Your task to perform on an android device: check storage Image 0: 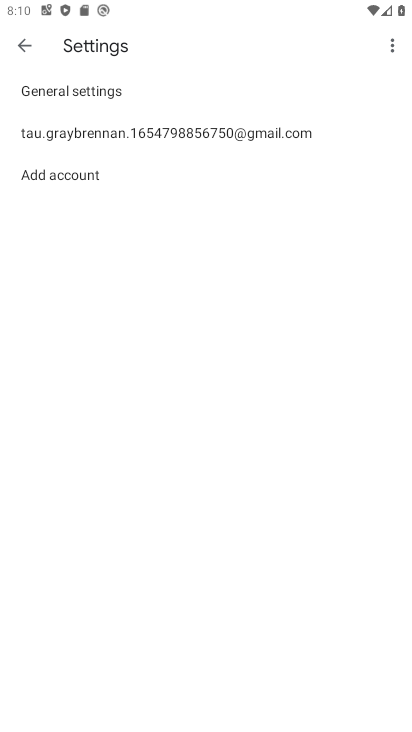
Step 0: press home button
Your task to perform on an android device: check storage Image 1: 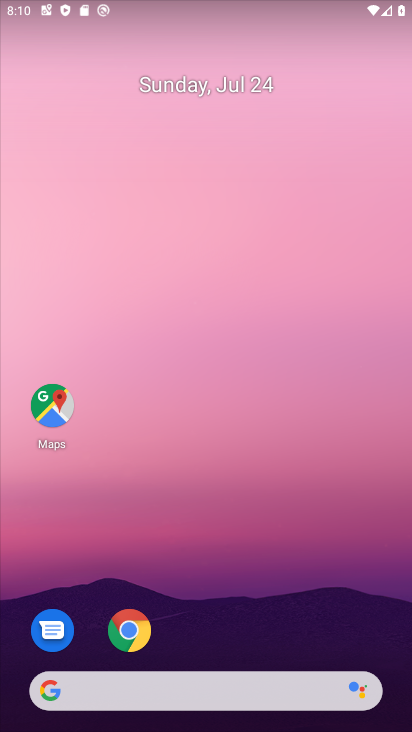
Step 1: drag from (250, 646) to (237, 113)
Your task to perform on an android device: check storage Image 2: 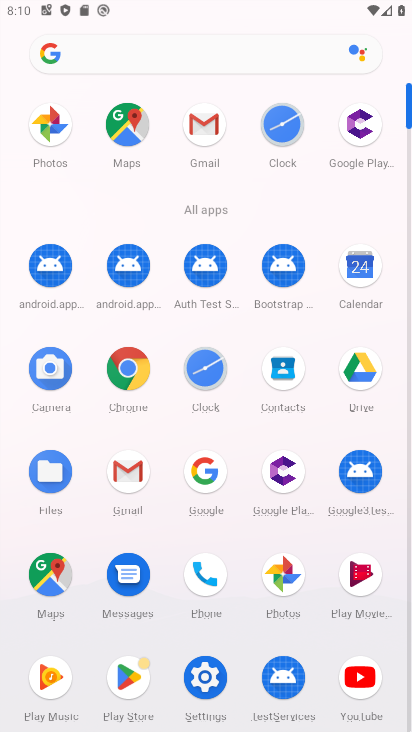
Step 2: click (211, 662)
Your task to perform on an android device: check storage Image 3: 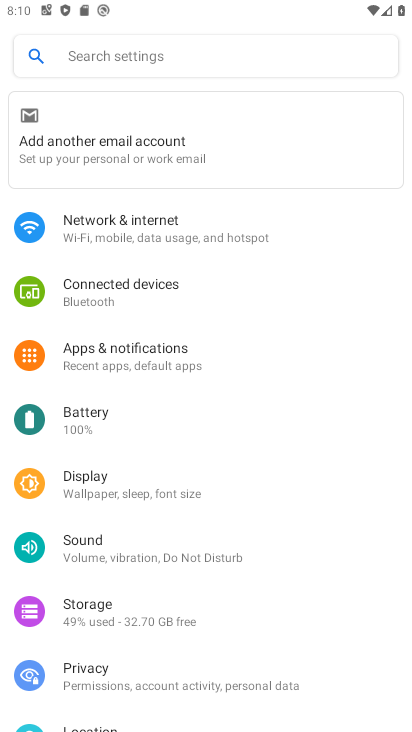
Step 3: click (239, 607)
Your task to perform on an android device: check storage Image 4: 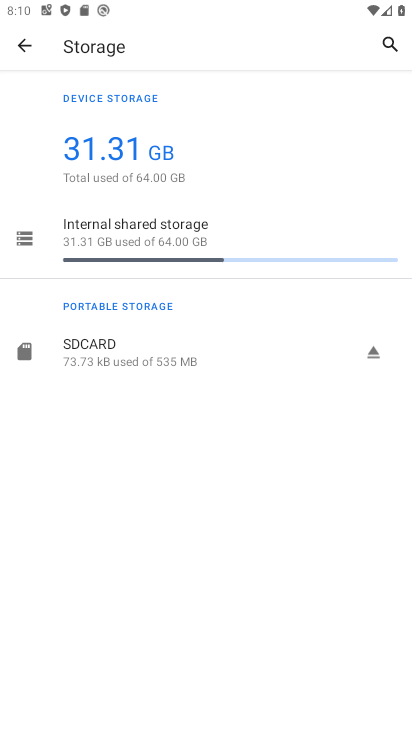
Step 4: task complete